Your task to perform on an android device: turn on the 24-hour format for clock Image 0: 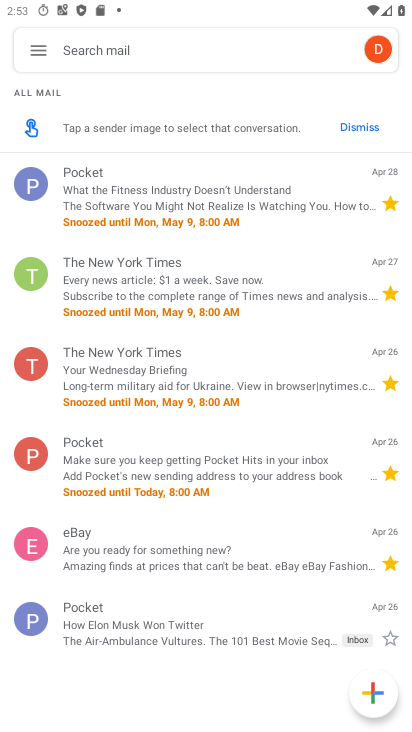
Step 0: press home button
Your task to perform on an android device: turn on the 24-hour format for clock Image 1: 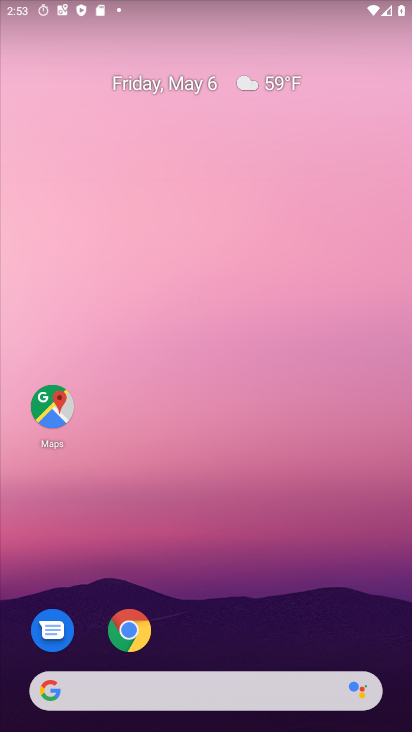
Step 1: drag from (207, 606) to (226, 218)
Your task to perform on an android device: turn on the 24-hour format for clock Image 2: 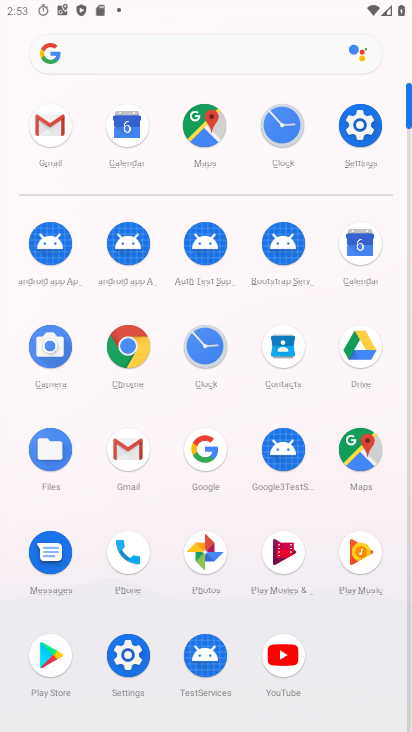
Step 2: click (186, 345)
Your task to perform on an android device: turn on the 24-hour format for clock Image 3: 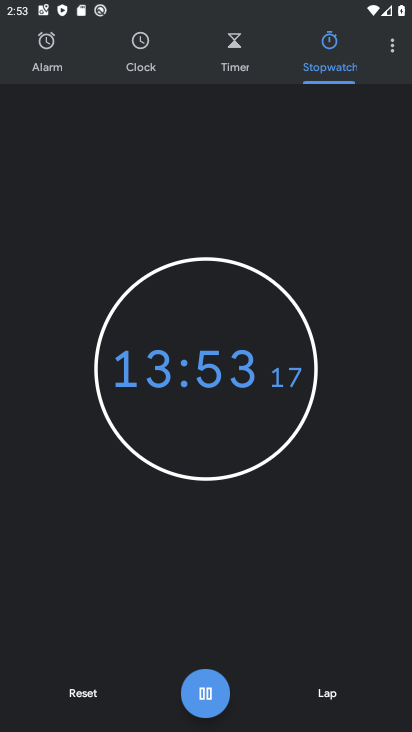
Step 3: click (382, 51)
Your task to perform on an android device: turn on the 24-hour format for clock Image 4: 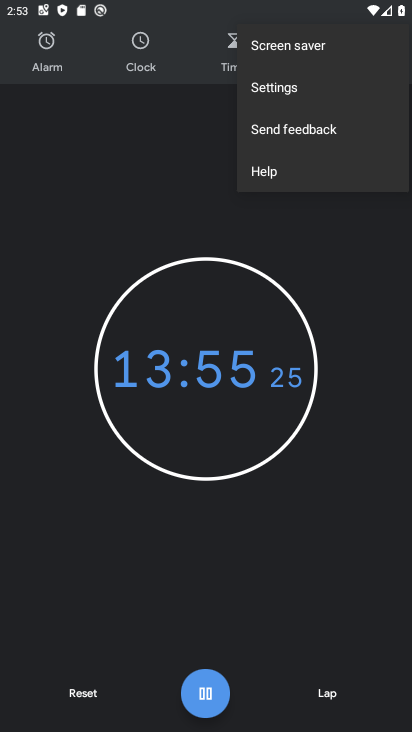
Step 4: click (289, 96)
Your task to perform on an android device: turn on the 24-hour format for clock Image 5: 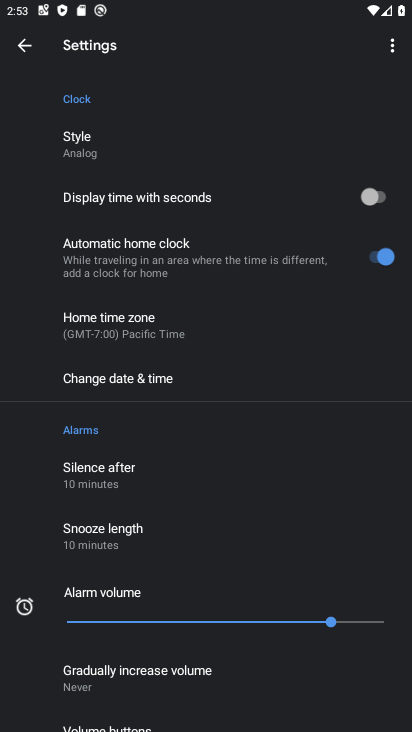
Step 5: click (156, 379)
Your task to perform on an android device: turn on the 24-hour format for clock Image 6: 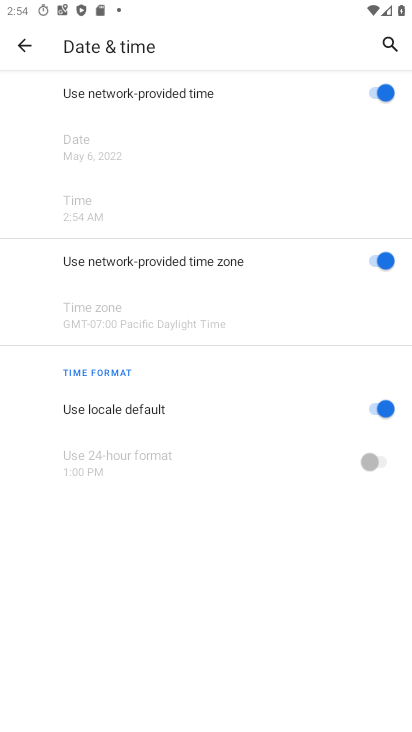
Step 6: click (375, 407)
Your task to perform on an android device: turn on the 24-hour format for clock Image 7: 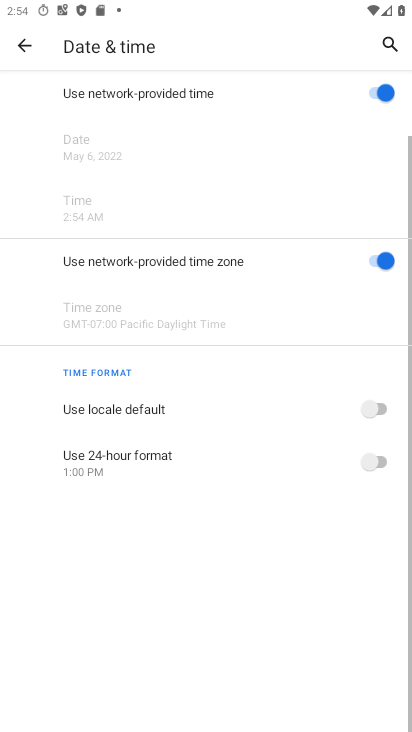
Step 7: click (381, 460)
Your task to perform on an android device: turn on the 24-hour format for clock Image 8: 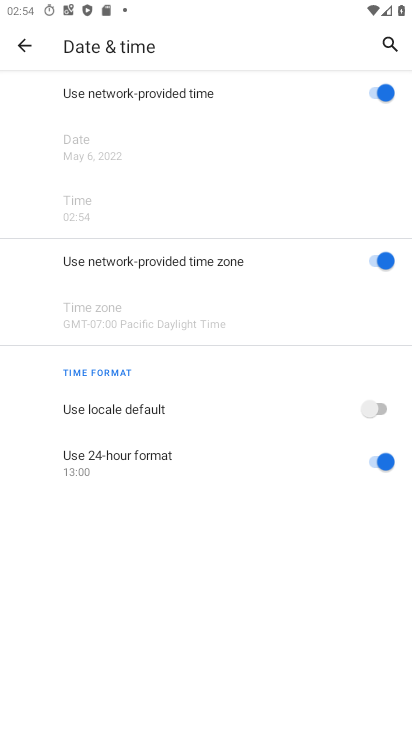
Step 8: task complete